Your task to perform on an android device: Open Google Chrome and click the shortcut for Amazon.com Image 0: 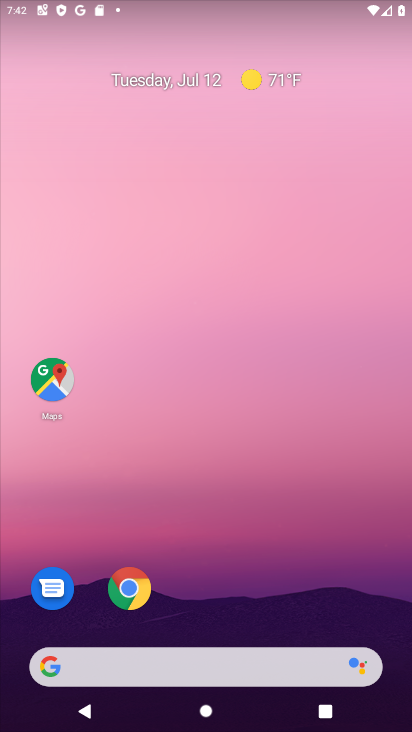
Step 0: click (146, 584)
Your task to perform on an android device: Open Google Chrome and click the shortcut for Amazon.com Image 1: 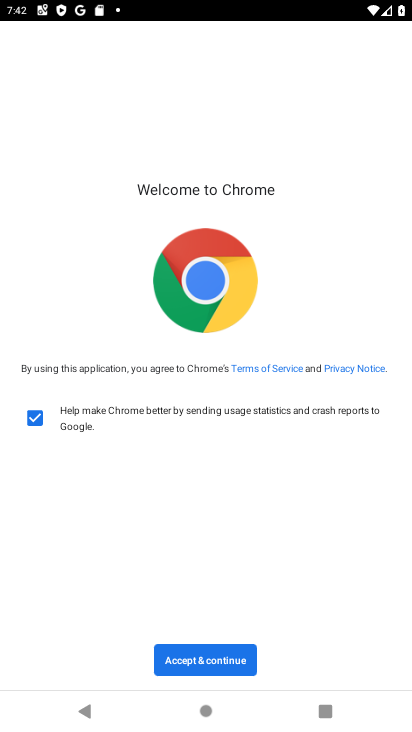
Step 1: click (200, 660)
Your task to perform on an android device: Open Google Chrome and click the shortcut for Amazon.com Image 2: 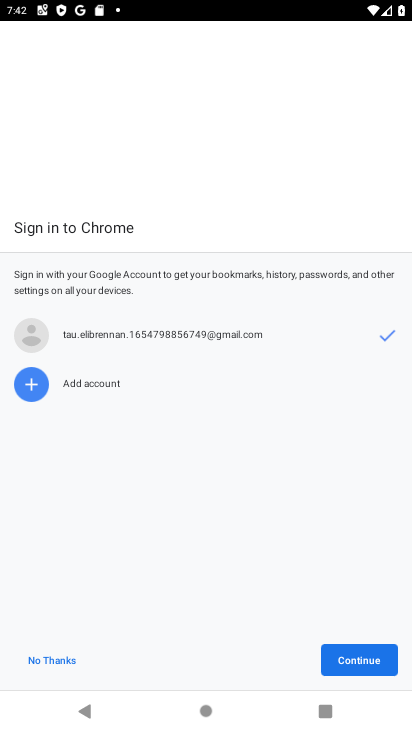
Step 2: click (339, 655)
Your task to perform on an android device: Open Google Chrome and click the shortcut for Amazon.com Image 3: 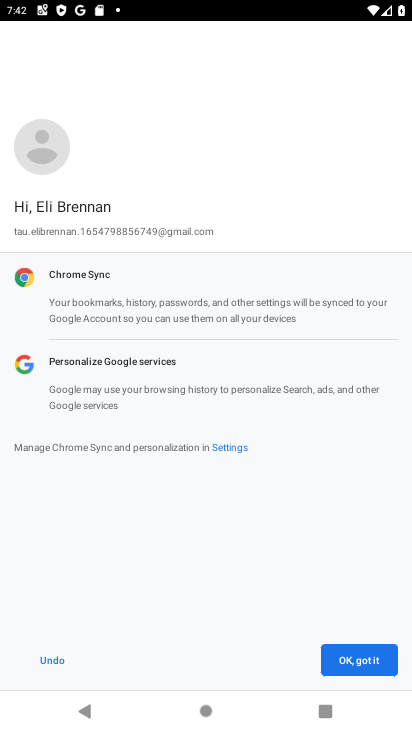
Step 3: click (381, 658)
Your task to perform on an android device: Open Google Chrome and click the shortcut for Amazon.com Image 4: 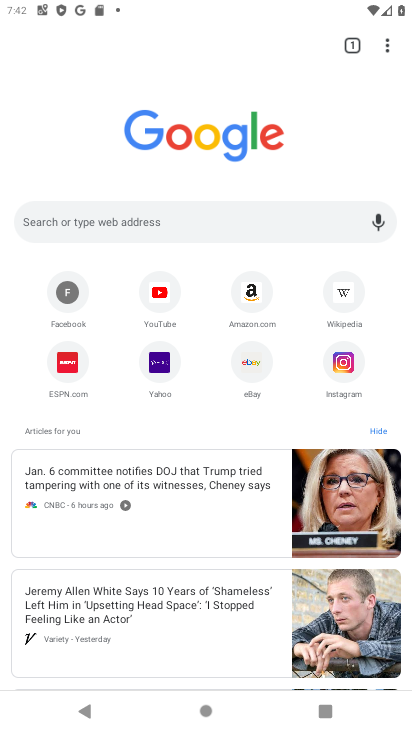
Step 4: click (251, 305)
Your task to perform on an android device: Open Google Chrome and click the shortcut for Amazon.com Image 5: 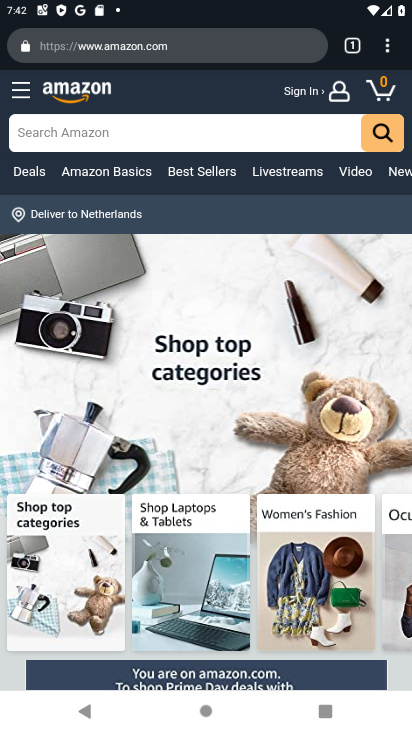
Step 5: task complete